Your task to perform on an android device: Turn on the flashlight Image 0: 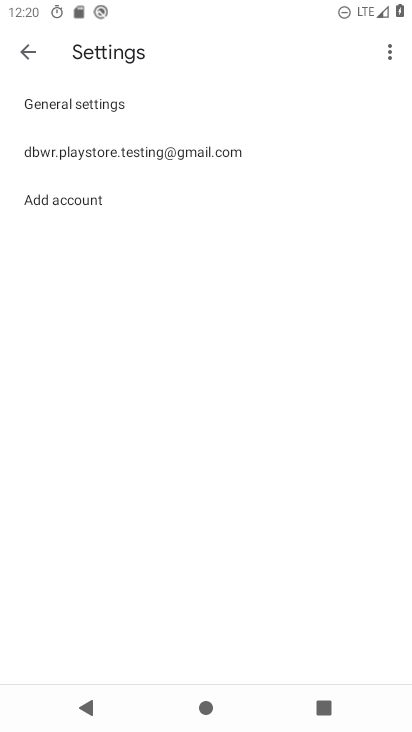
Step 0: press home button
Your task to perform on an android device: Turn on the flashlight Image 1: 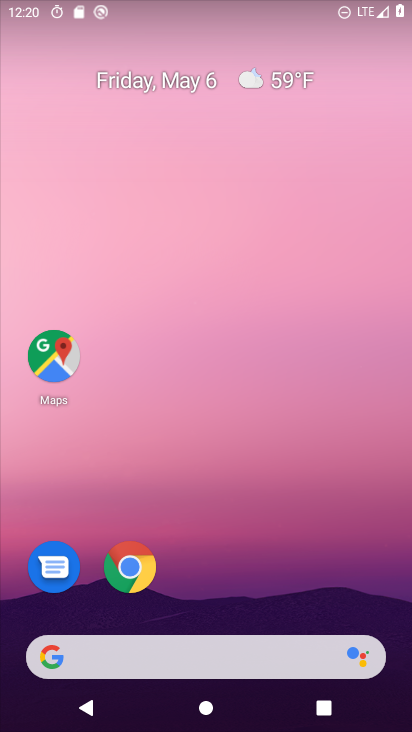
Step 1: task complete